Your task to perform on an android device: show emergency info Image 0: 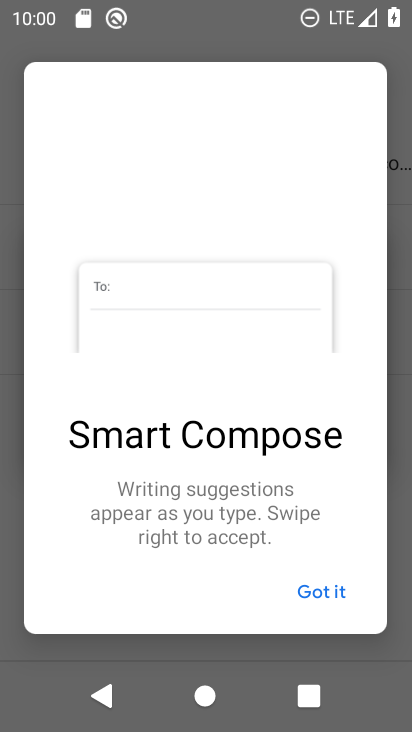
Step 0: press home button
Your task to perform on an android device: show emergency info Image 1: 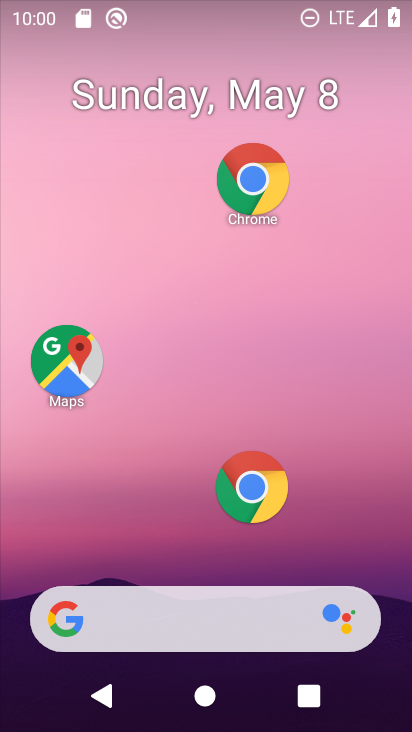
Step 1: drag from (136, 469) to (201, 11)
Your task to perform on an android device: show emergency info Image 2: 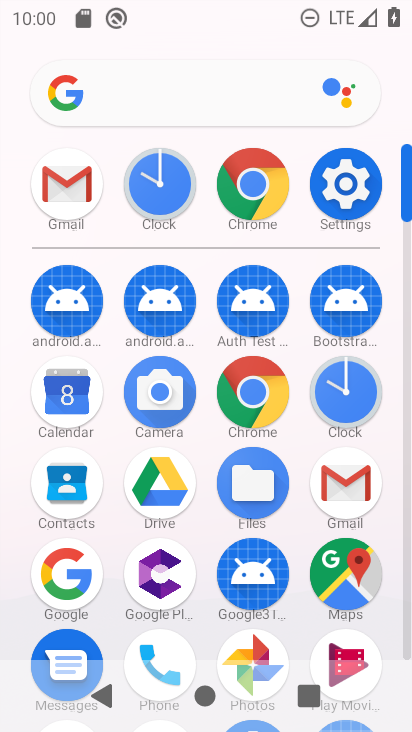
Step 2: click (351, 190)
Your task to perform on an android device: show emergency info Image 3: 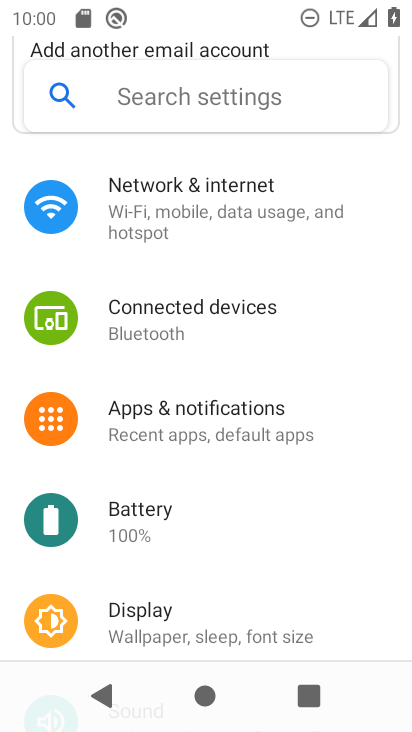
Step 3: drag from (269, 605) to (292, 189)
Your task to perform on an android device: show emergency info Image 4: 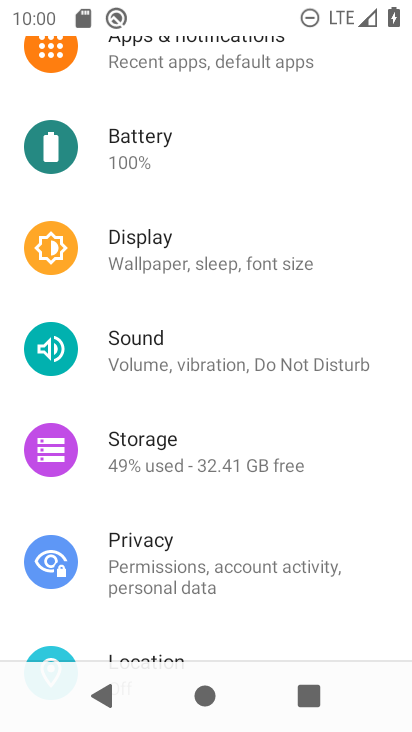
Step 4: drag from (218, 616) to (224, 107)
Your task to perform on an android device: show emergency info Image 5: 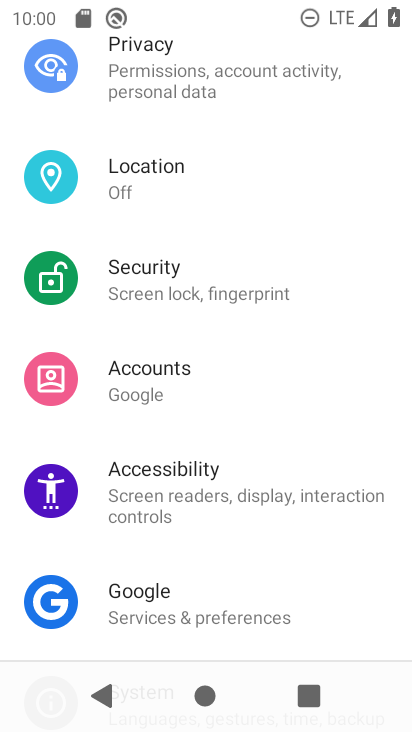
Step 5: drag from (245, 573) to (265, 97)
Your task to perform on an android device: show emergency info Image 6: 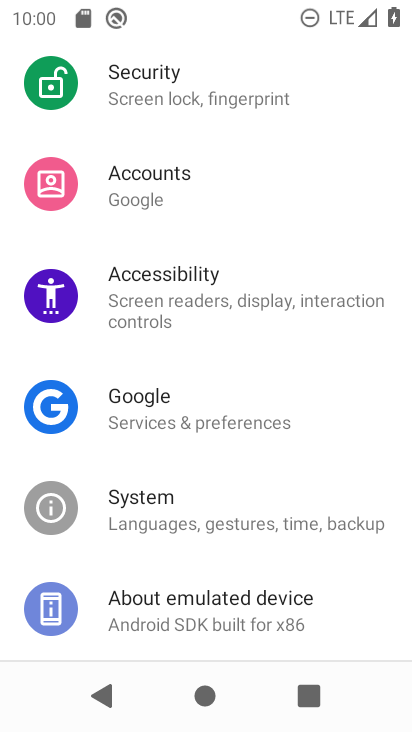
Step 6: click (213, 586)
Your task to perform on an android device: show emergency info Image 7: 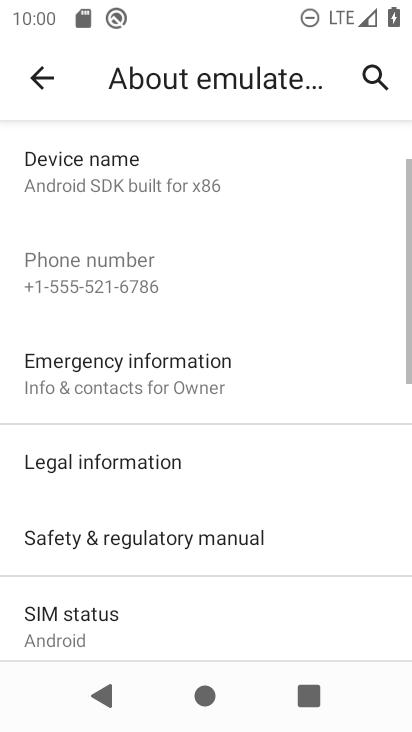
Step 7: click (215, 374)
Your task to perform on an android device: show emergency info Image 8: 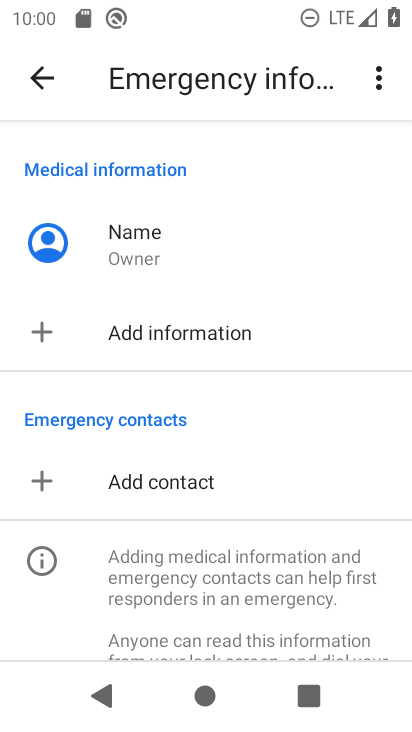
Step 8: task complete